Your task to perform on an android device: Search for coffee table on Crate & Barrel Image 0: 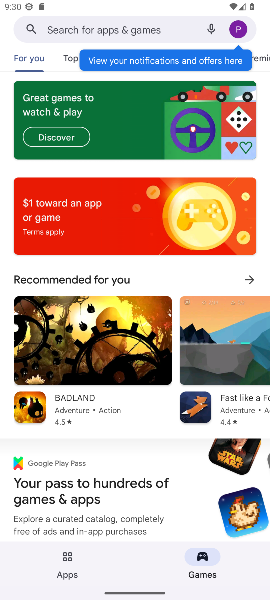
Step 0: press home button
Your task to perform on an android device: Search for coffee table on Crate & Barrel Image 1: 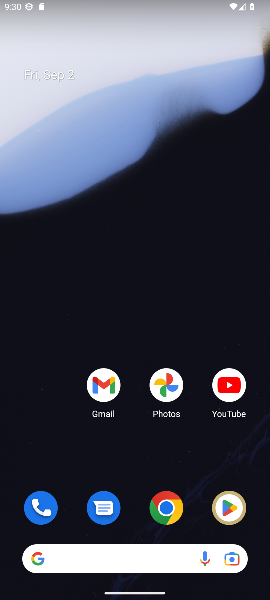
Step 1: click (169, 503)
Your task to perform on an android device: Search for coffee table on Crate & Barrel Image 2: 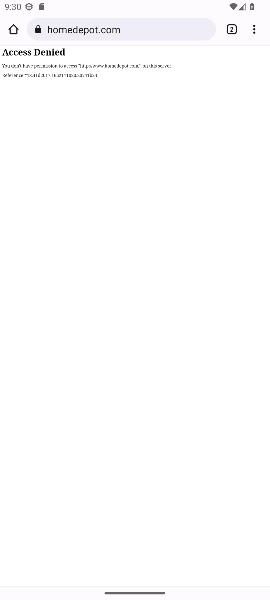
Step 2: click (96, 27)
Your task to perform on an android device: Search for coffee table on Crate & Barrel Image 3: 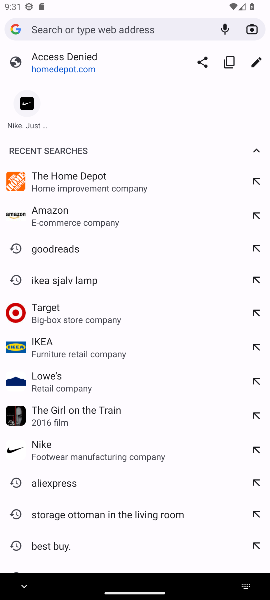
Step 3: type "coffee table on Crate & Barrel"
Your task to perform on an android device: Search for coffee table on Crate & Barrel Image 4: 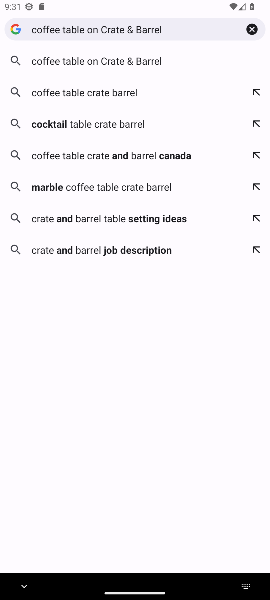
Step 4: click (103, 62)
Your task to perform on an android device: Search for coffee table on Crate & Barrel Image 5: 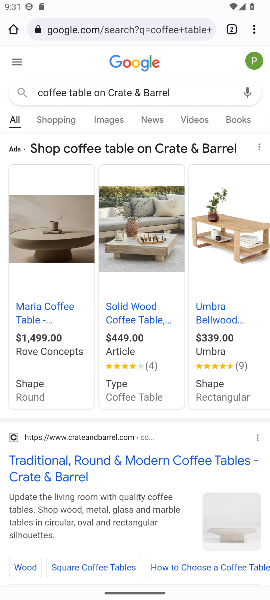
Step 5: task complete